Your task to perform on an android device: Check the news Image 0: 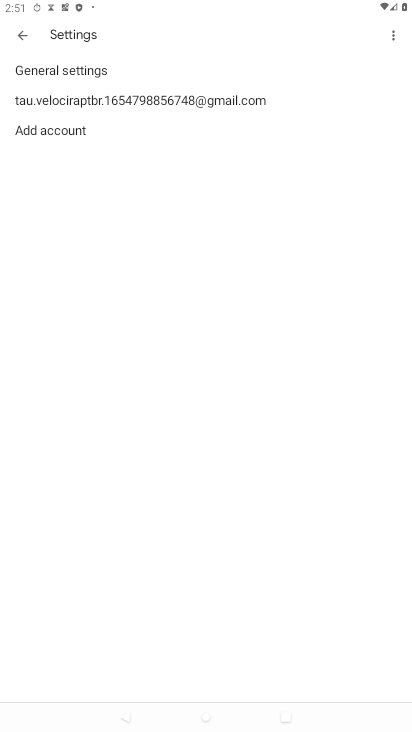
Step 0: press home button
Your task to perform on an android device: Check the news Image 1: 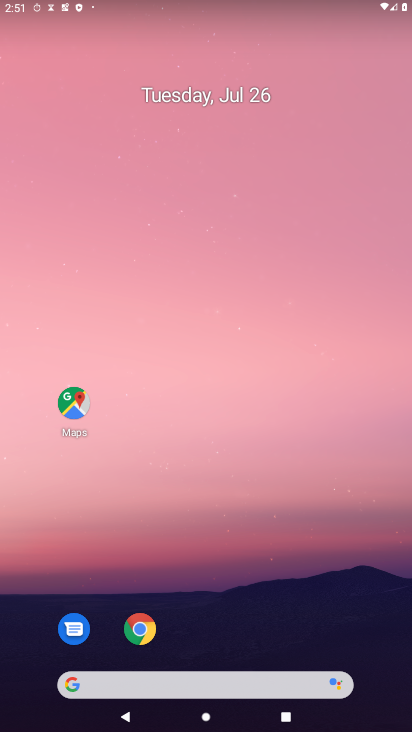
Step 1: drag from (111, 694) to (72, 54)
Your task to perform on an android device: Check the news Image 2: 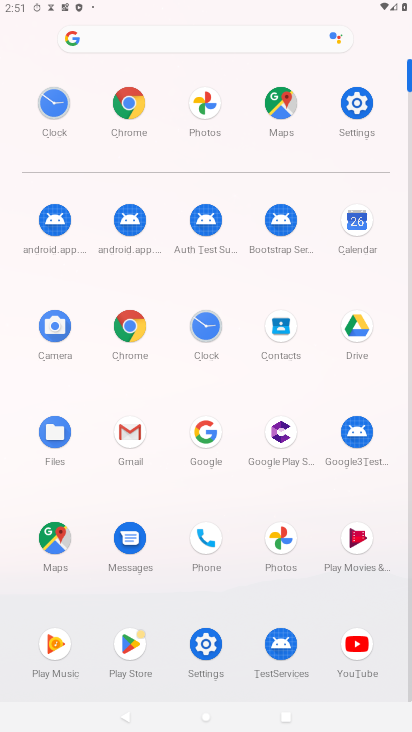
Step 2: click (130, 330)
Your task to perform on an android device: Check the news Image 3: 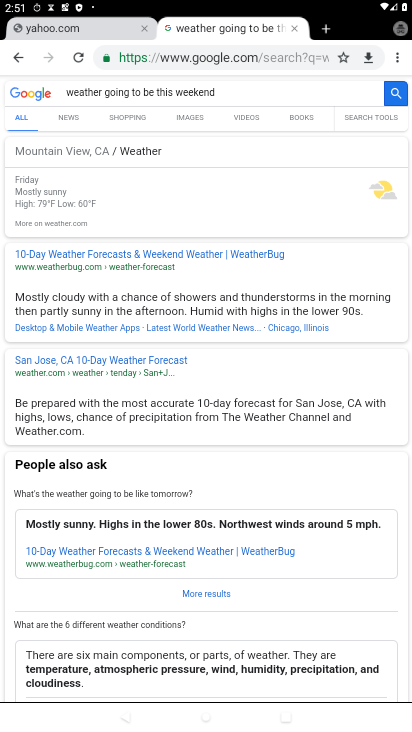
Step 3: click (258, 56)
Your task to perform on an android device: Check the news Image 4: 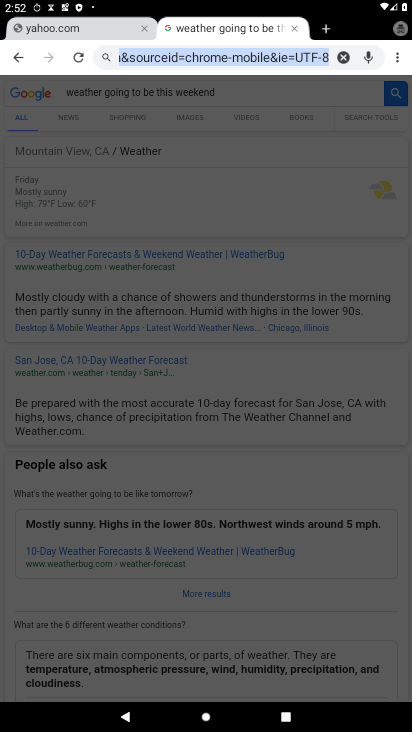
Step 4: type "check the news"
Your task to perform on an android device: Check the news Image 5: 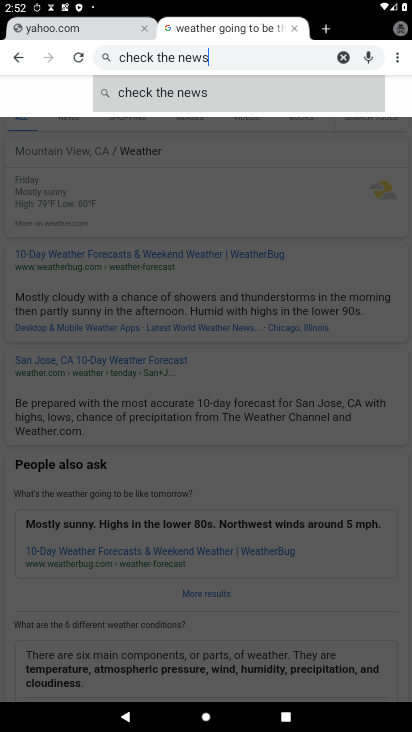
Step 5: click (198, 92)
Your task to perform on an android device: Check the news Image 6: 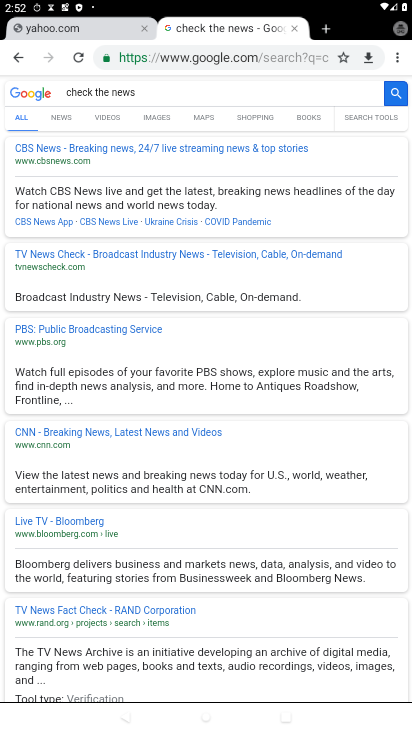
Step 6: task complete